Your task to perform on an android device: Open calendar and show me the second week of next month Image 0: 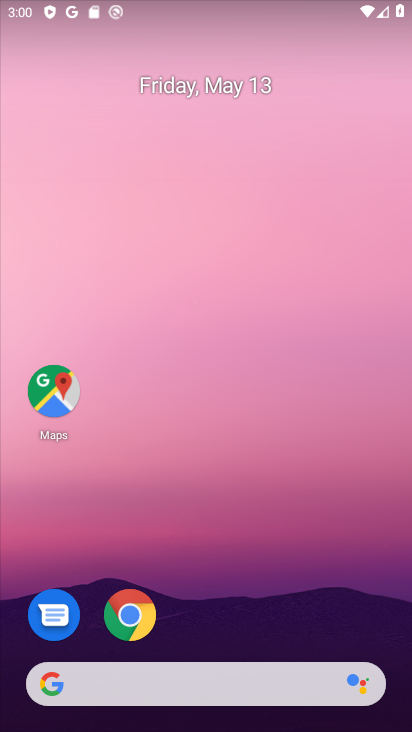
Step 0: drag from (172, 680) to (316, 173)
Your task to perform on an android device: Open calendar and show me the second week of next month Image 1: 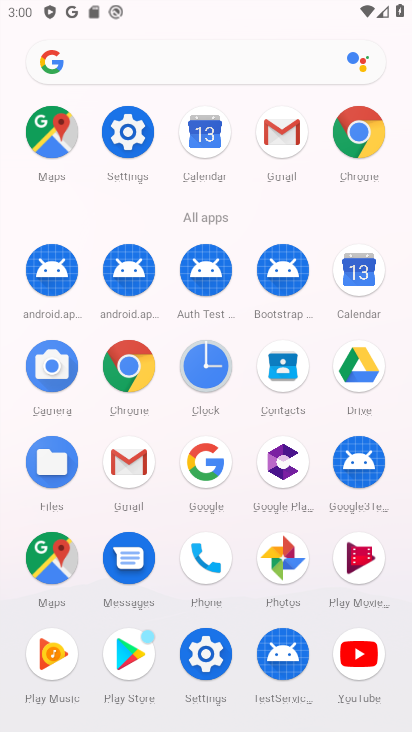
Step 1: click (349, 278)
Your task to perform on an android device: Open calendar and show me the second week of next month Image 2: 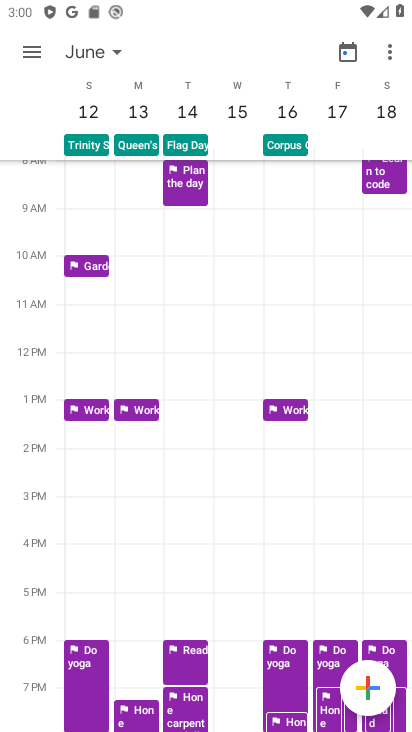
Step 2: click (92, 52)
Your task to perform on an android device: Open calendar and show me the second week of next month Image 3: 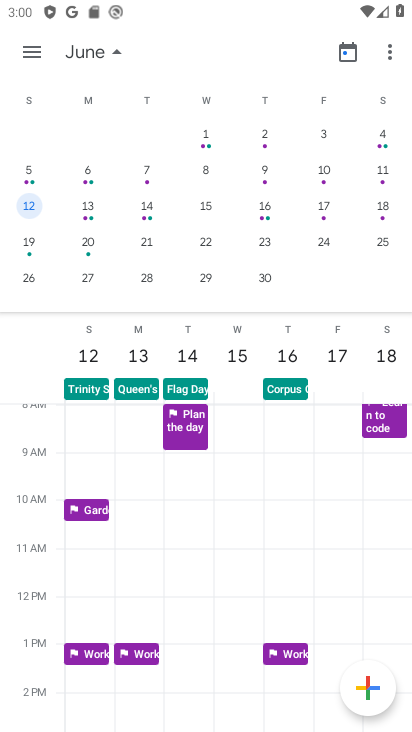
Step 3: click (31, 174)
Your task to perform on an android device: Open calendar and show me the second week of next month Image 4: 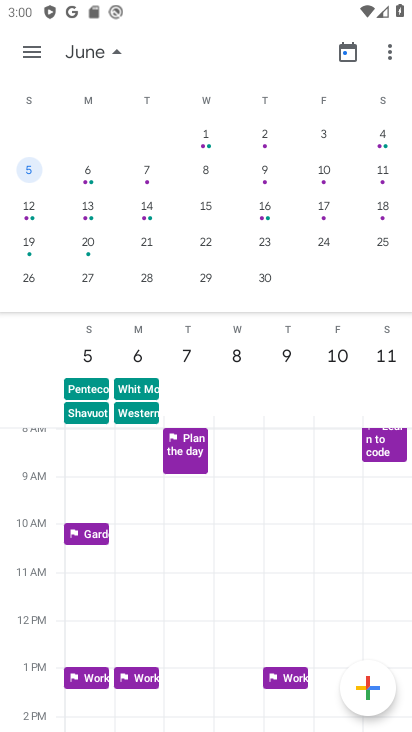
Step 4: click (41, 52)
Your task to perform on an android device: Open calendar and show me the second week of next month Image 5: 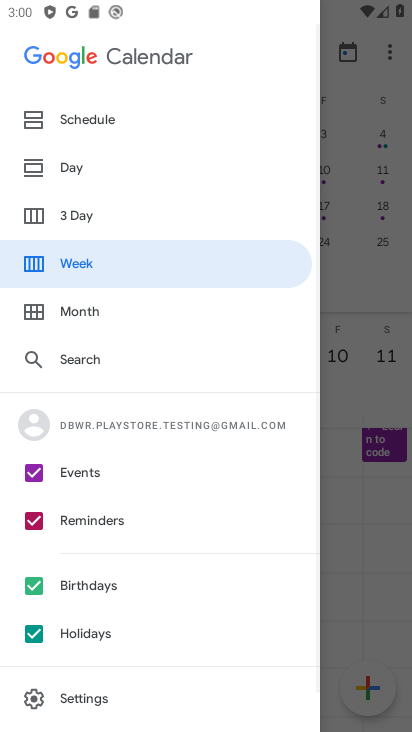
Step 5: click (108, 253)
Your task to perform on an android device: Open calendar and show me the second week of next month Image 6: 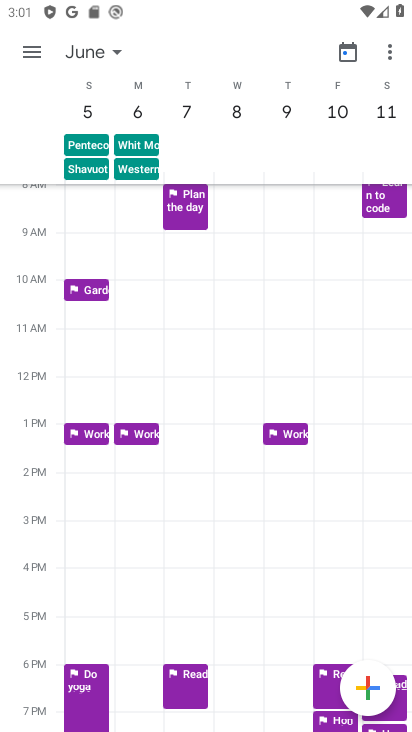
Step 6: task complete